Your task to perform on an android device: Go to display settings Image 0: 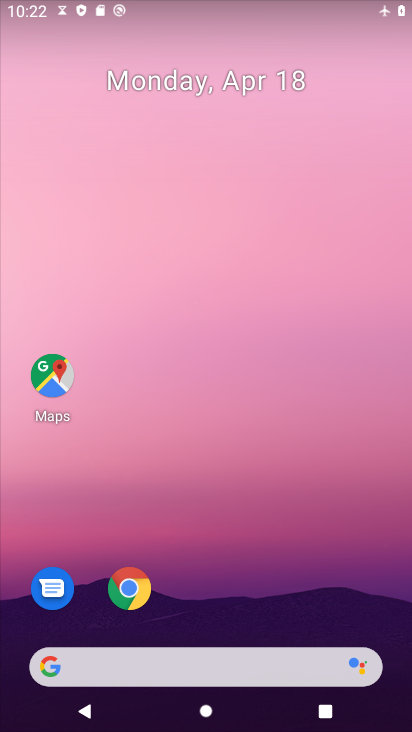
Step 0: drag from (374, 538) to (286, 26)
Your task to perform on an android device: Go to display settings Image 1: 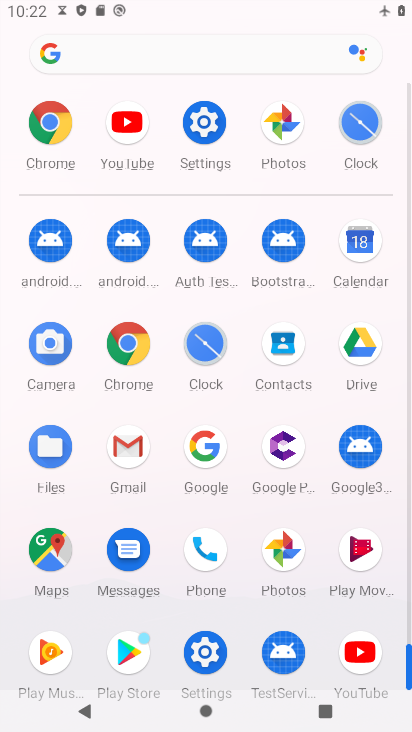
Step 1: drag from (12, 481) to (4, 220)
Your task to perform on an android device: Go to display settings Image 2: 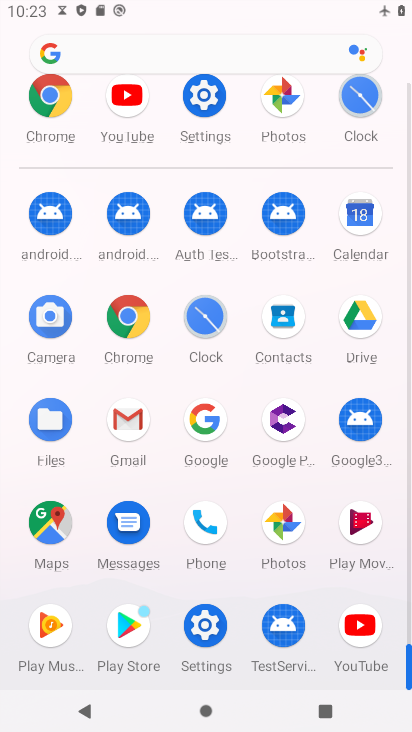
Step 2: click (203, 623)
Your task to perform on an android device: Go to display settings Image 3: 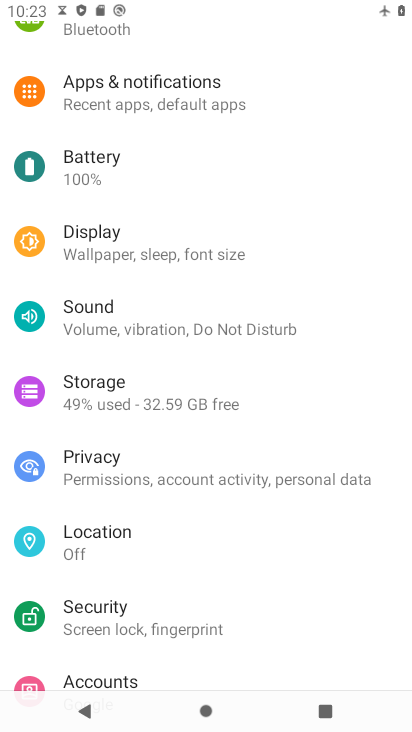
Step 3: click (137, 244)
Your task to perform on an android device: Go to display settings Image 4: 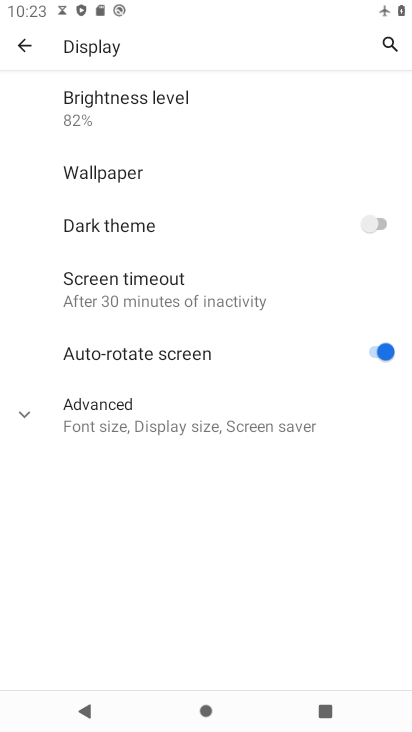
Step 4: click (28, 410)
Your task to perform on an android device: Go to display settings Image 5: 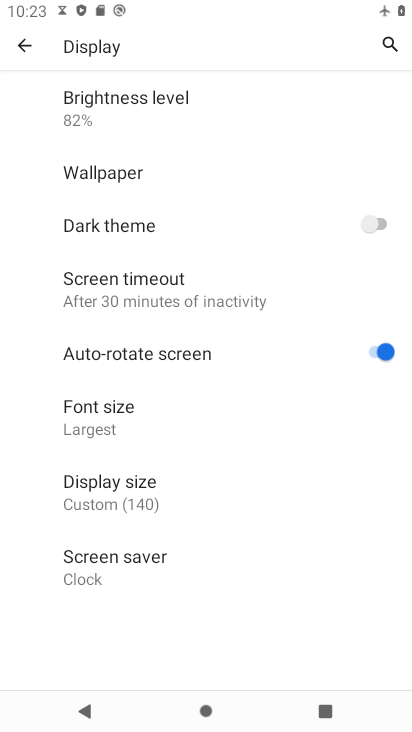
Step 5: task complete